Your task to perform on an android device: turn off wifi Image 0: 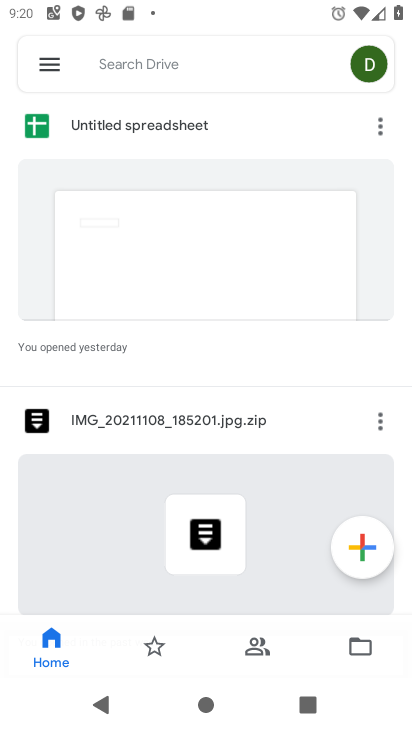
Step 0: press home button
Your task to perform on an android device: turn off wifi Image 1: 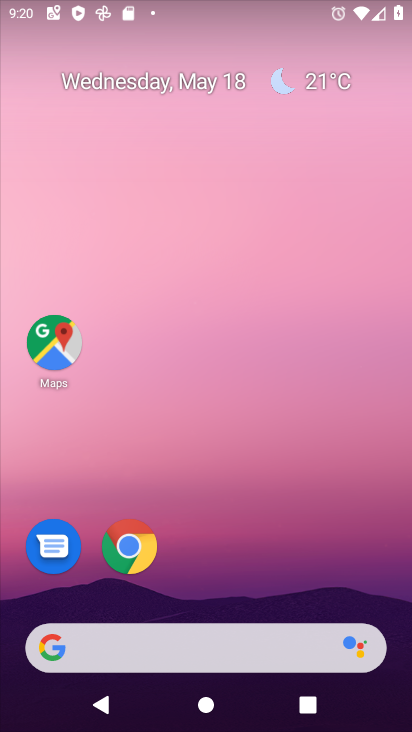
Step 1: drag from (190, 12) to (238, 557)
Your task to perform on an android device: turn off wifi Image 2: 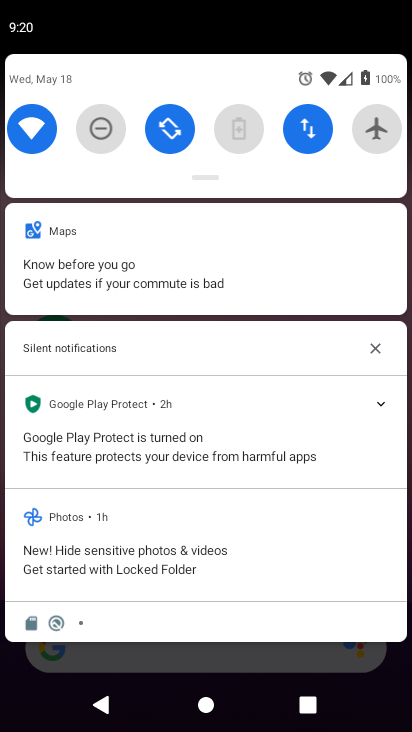
Step 2: click (32, 130)
Your task to perform on an android device: turn off wifi Image 3: 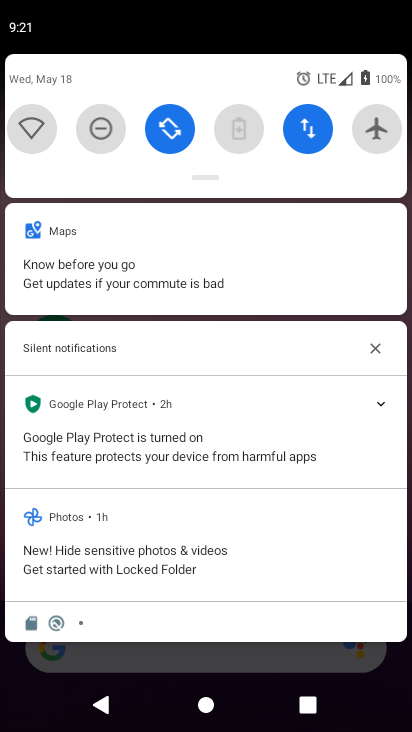
Step 3: task complete